Your task to perform on an android device: toggle notifications settings in the gmail app Image 0: 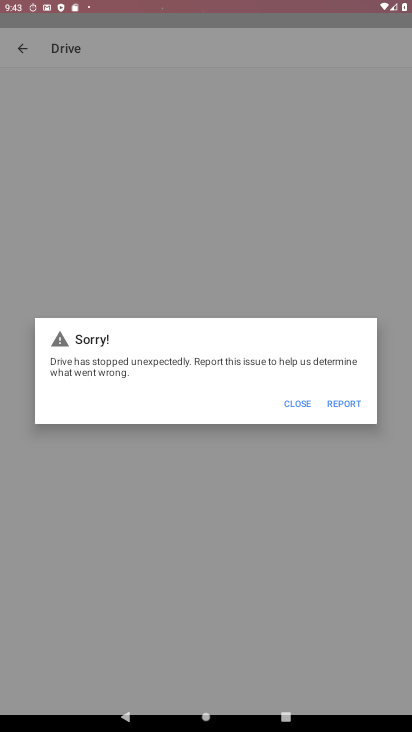
Step 0: click (211, 154)
Your task to perform on an android device: toggle notifications settings in the gmail app Image 1: 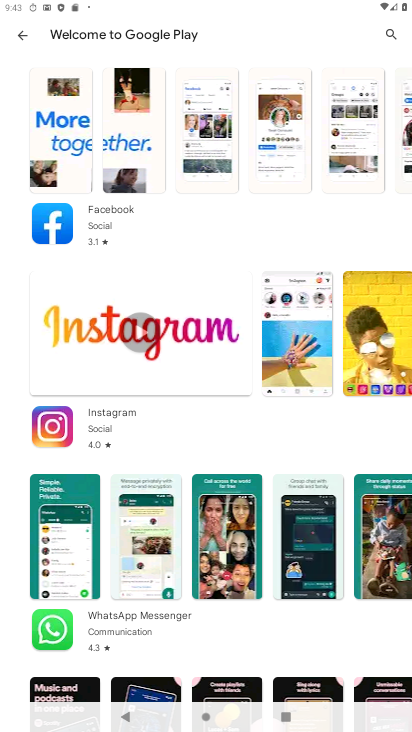
Step 1: press back button
Your task to perform on an android device: toggle notifications settings in the gmail app Image 2: 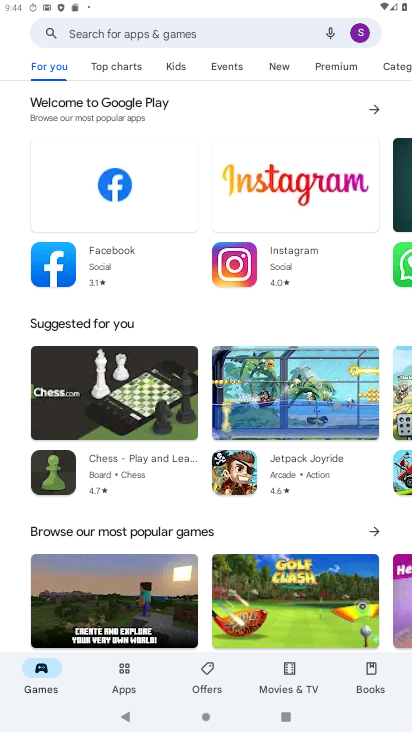
Step 2: press home button
Your task to perform on an android device: toggle notifications settings in the gmail app Image 3: 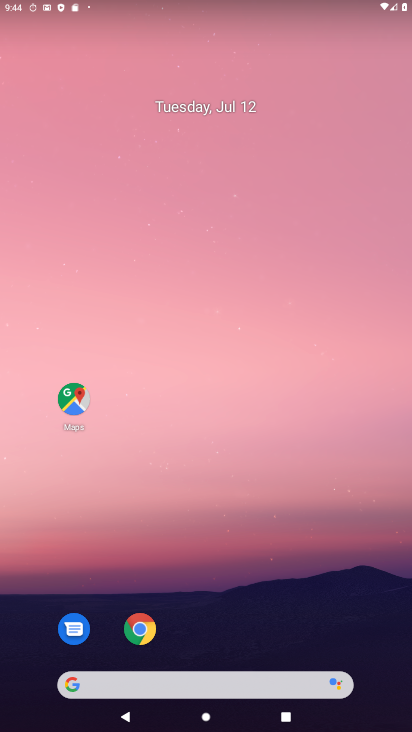
Step 3: drag from (241, 687) to (204, 204)
Your task to perform on an android device: toggle notifications settings in the gmail app Image 4: 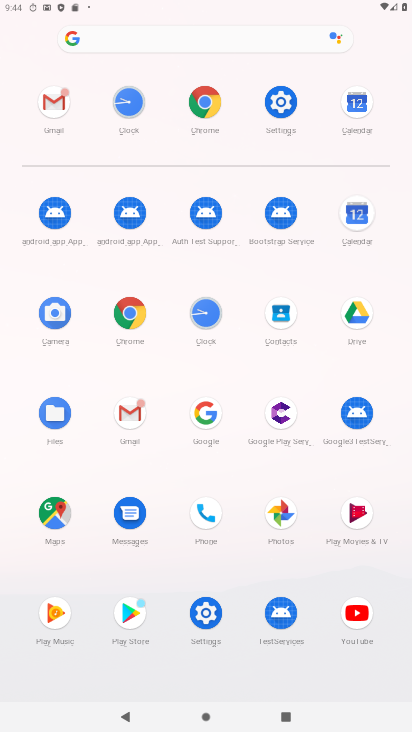
Step 4: click (125, 404)
Your task to perform on an android device: toggle notifications settings in the gmail app Image 5: 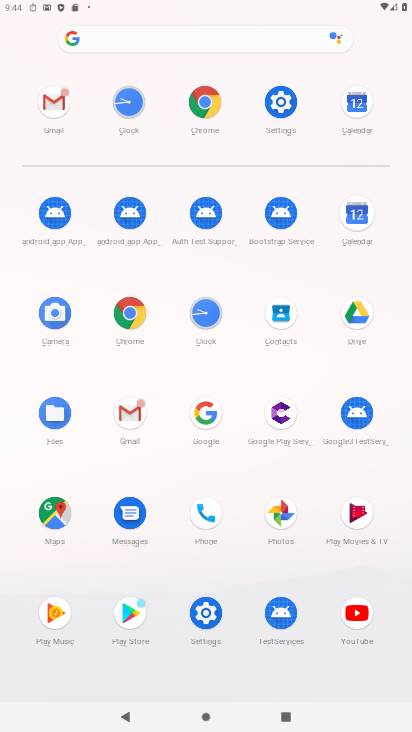
Step 5: click (129, 406)
Your task to perform on an android device: toggle notifications settings in the gmail app Image 6: 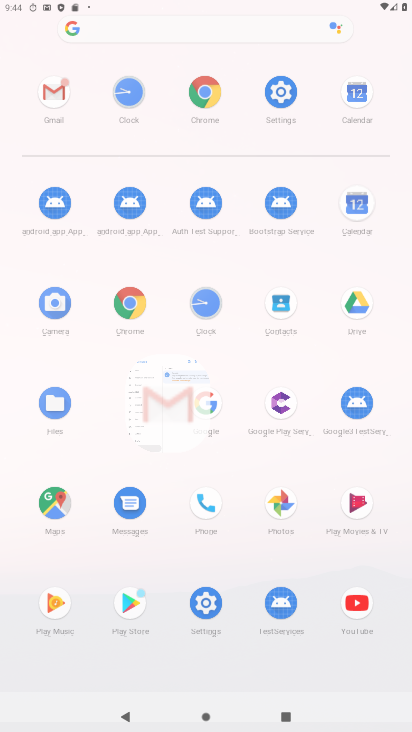
Step 6: click (129, 406)
Your task to perform on an android device: toggle notifications settings in the gmail app Image 7: 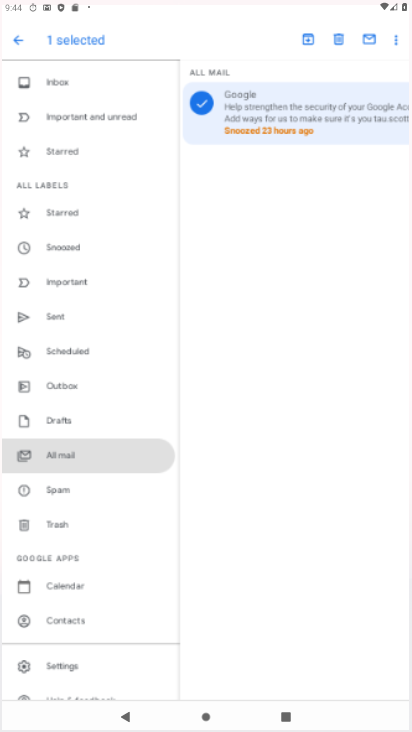
Step 7: click (130, 406)
Your task to perform on an android device: toggle notifications settings in the gmail app Image 8: 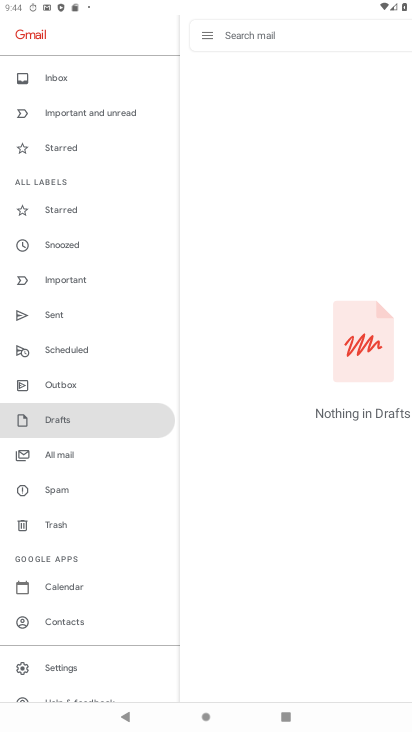
Step 8: click (61, 665)
Your task to perform on an android device: toggle notifications settings in the gmail app Image 9: 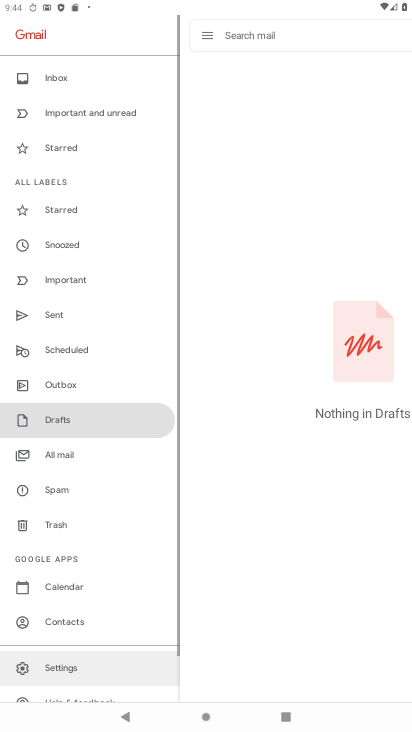
Step 9: click (62, 658)
Your task to perform on an android device: toggle notifications settings in the gmail app Image 10: 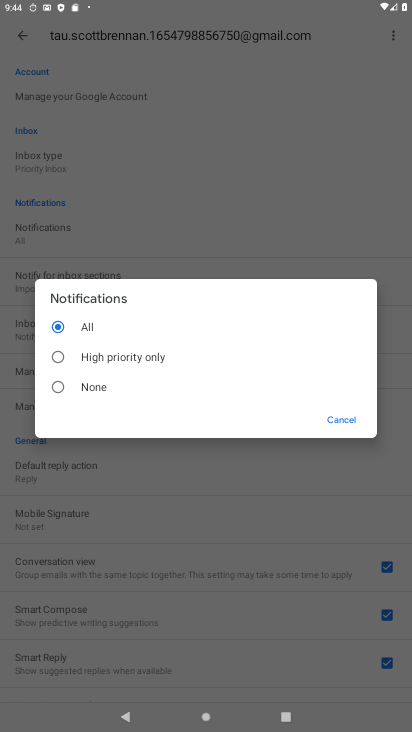
Step 10: click (51, 355)
Your task to perform on an android device: toggle notifications settings in the gmail app Image 11: 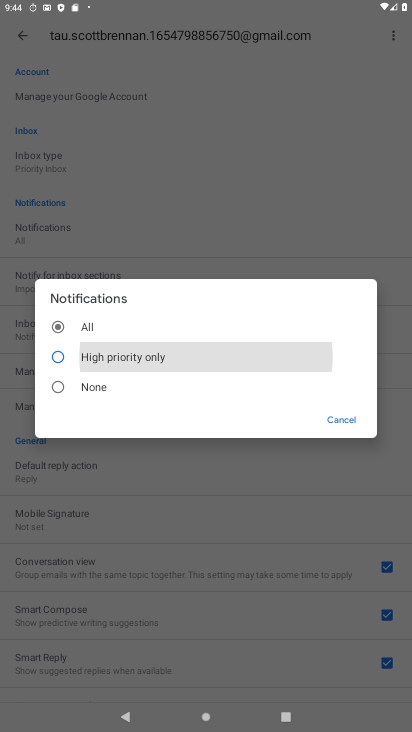
Step 11: click (57, 350)
Your task to perform on an android device: toggle notifications settings in the gmail app Image 12: 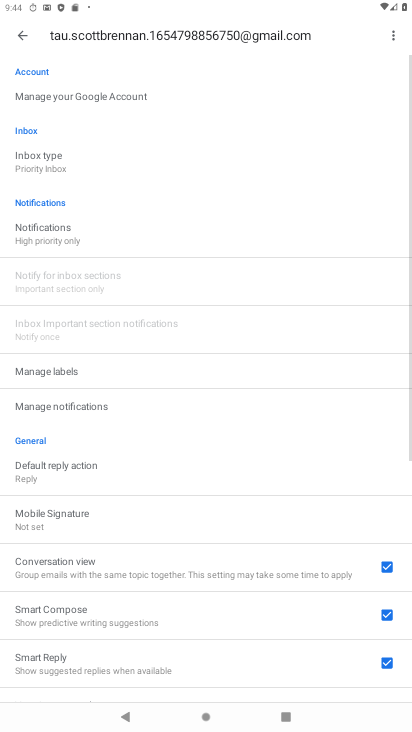
Step 12: task complete